Your task to perform on an android device: turn off airplane mode Image 0: 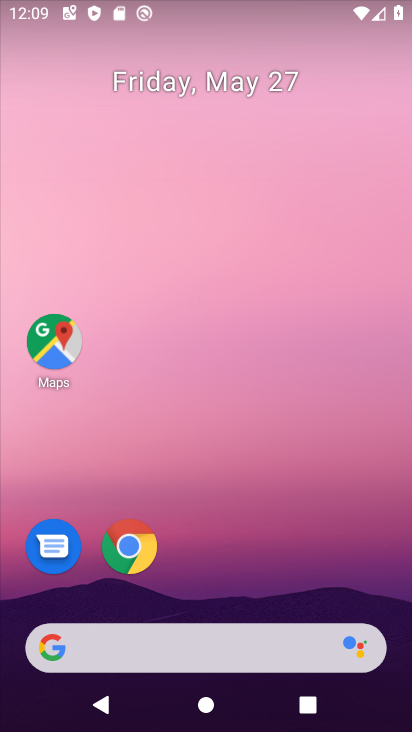
Step 0: drag from (288, 579) to (198, 119)
Your task to perform on an android device: turn off airplane mode Image 1: 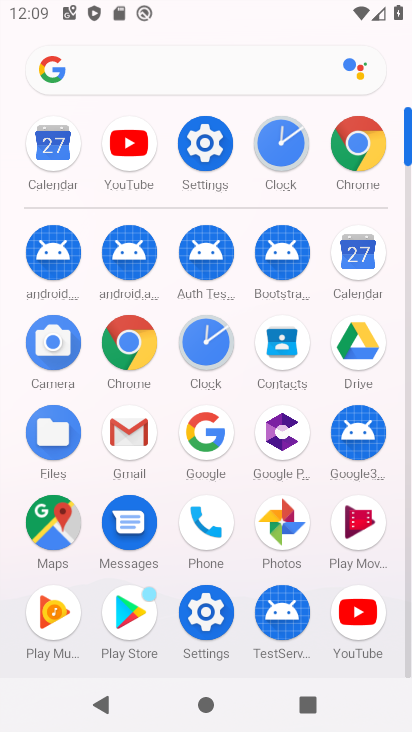
Step 1: click (205, 140)
Your task to perform on an android device: turn off airplane mode Image 2: 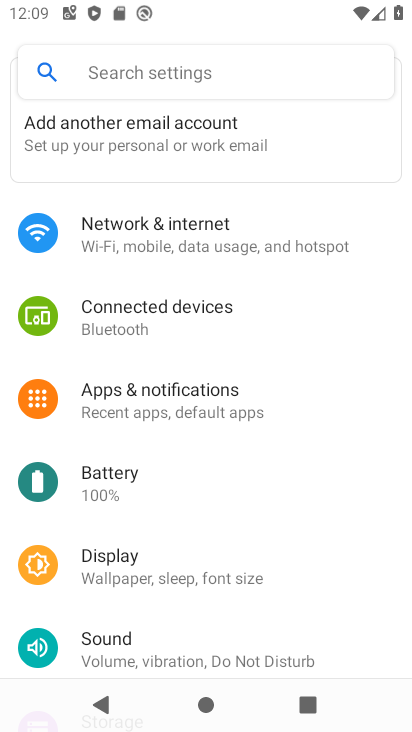
Step 2: click (168, 220)
Your task to perform on an android device: turn off airplane mode Image 3: 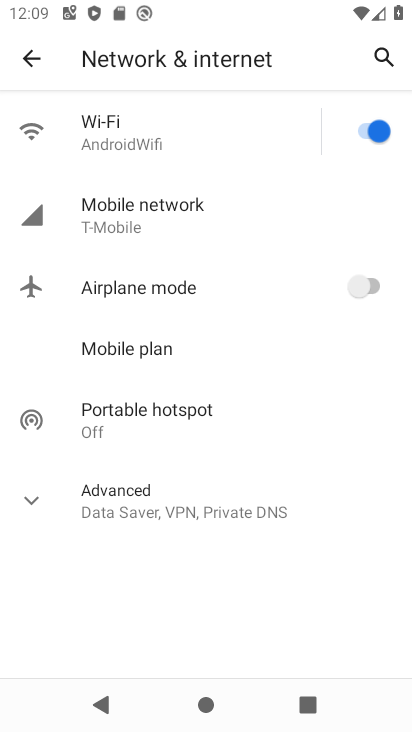
Step 3: task complete